Your task to perform on an android device: Open Android settings Image 0: 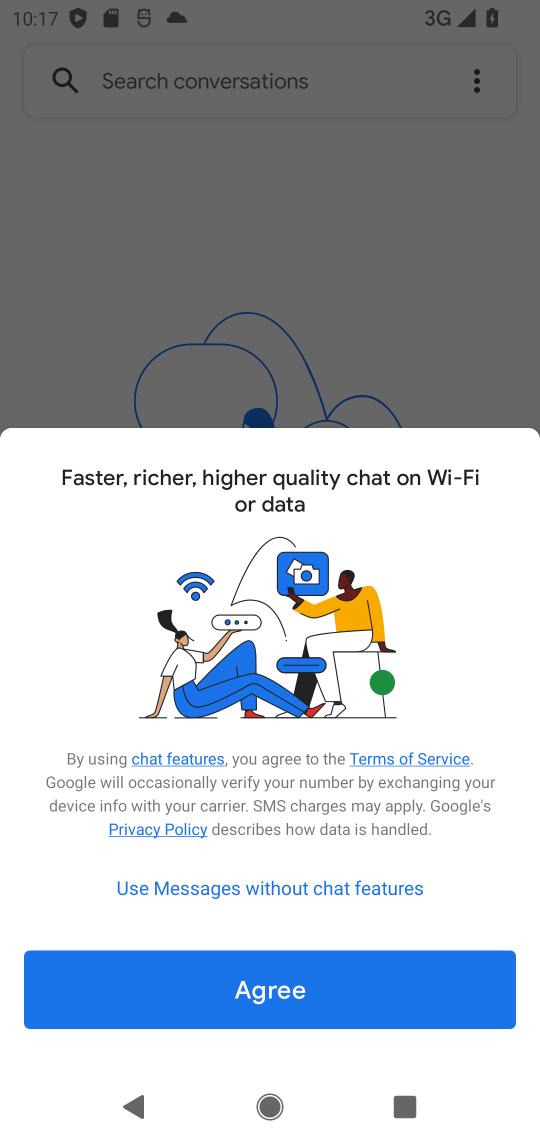
Step 0: press home button
Your task to perform on an android device: Open Android settings Image 1: 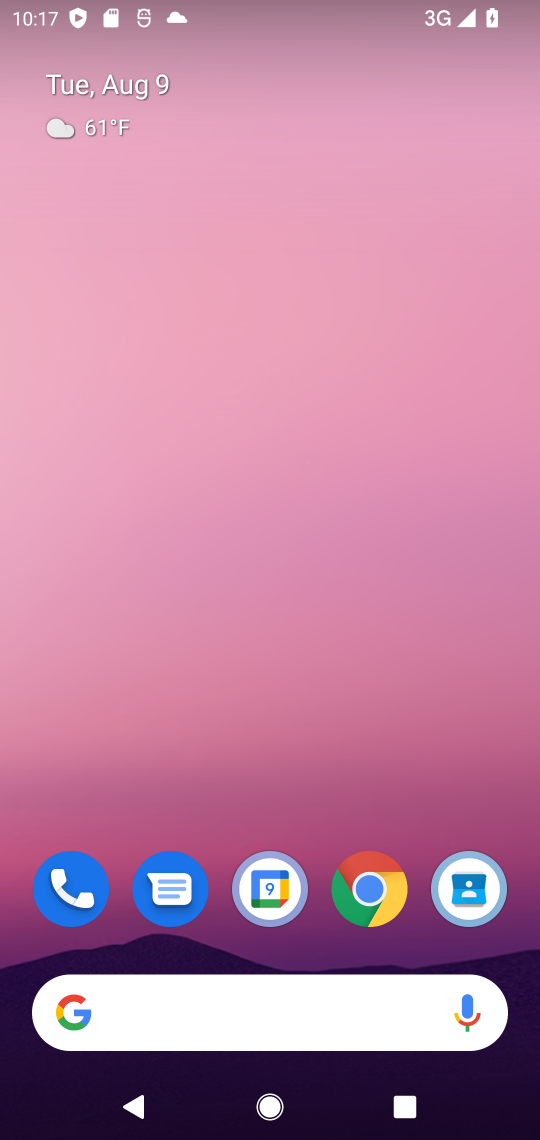
Step 1: drag from (350, 875) to (307, 97)
Your task to perform on an android device: Open Android settings Image 2: 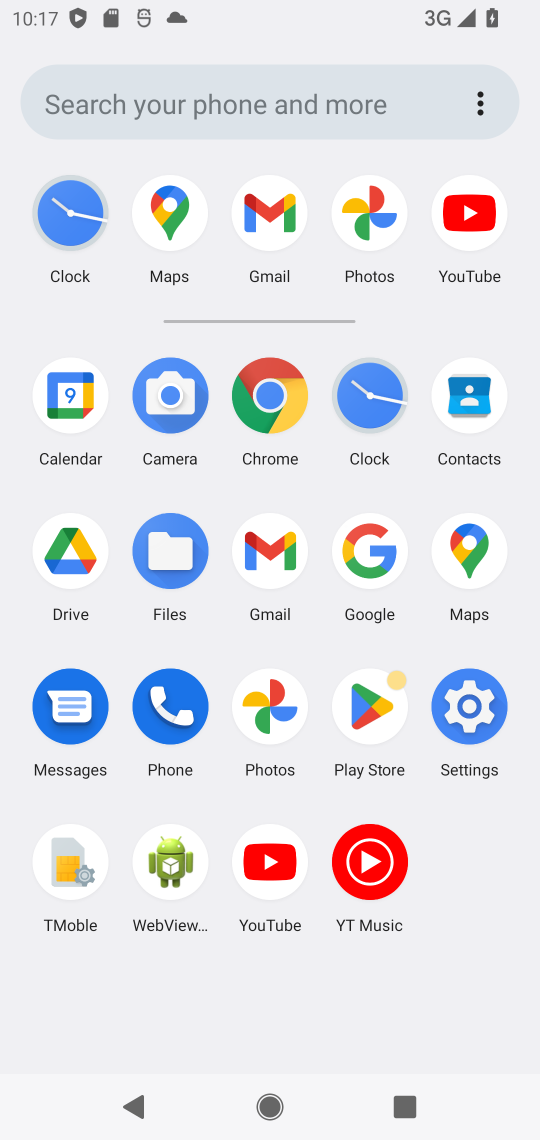
Step 2: click (464, 693)
Your task to perform on an android device: Open Android settings Image 3: 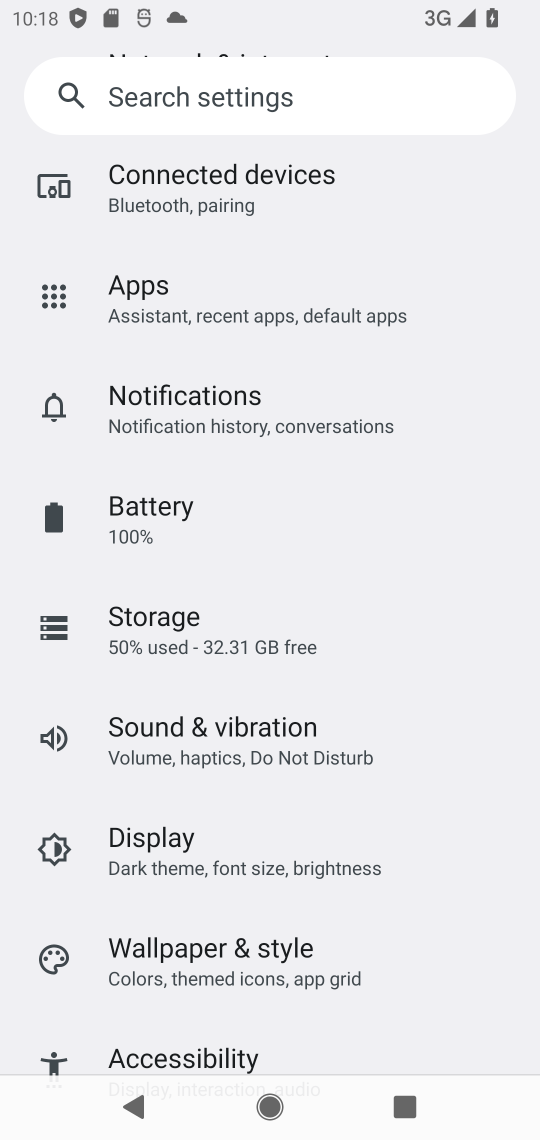
Step 3: drag from (318, 425) to (266, 897)
Your task to perform on an android device: Open Android settings Image 4: 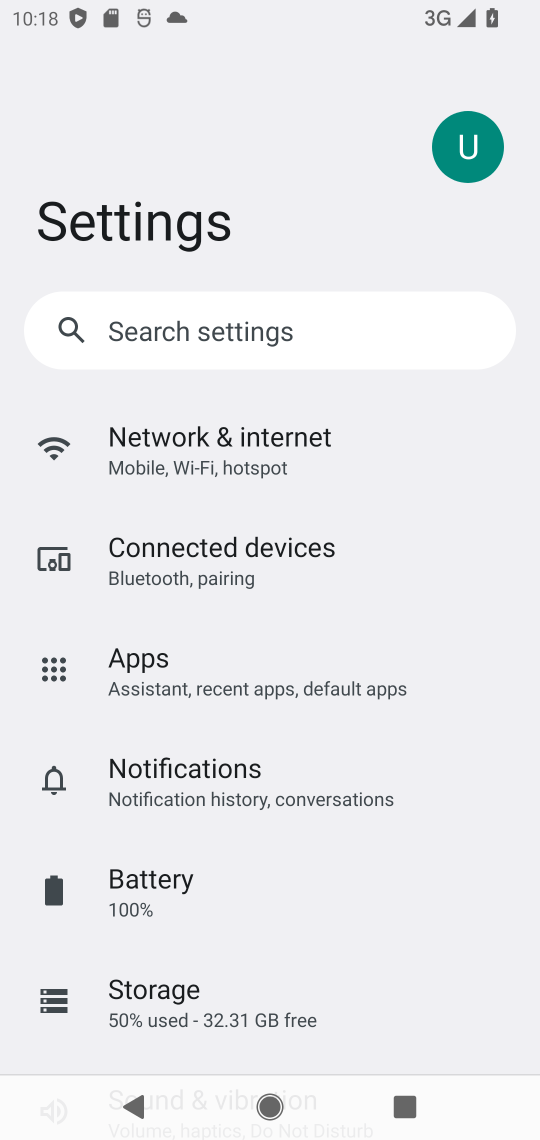
Step 4: click (211, 466)
Your task to perform on an android device: Open Android settings Image 5: 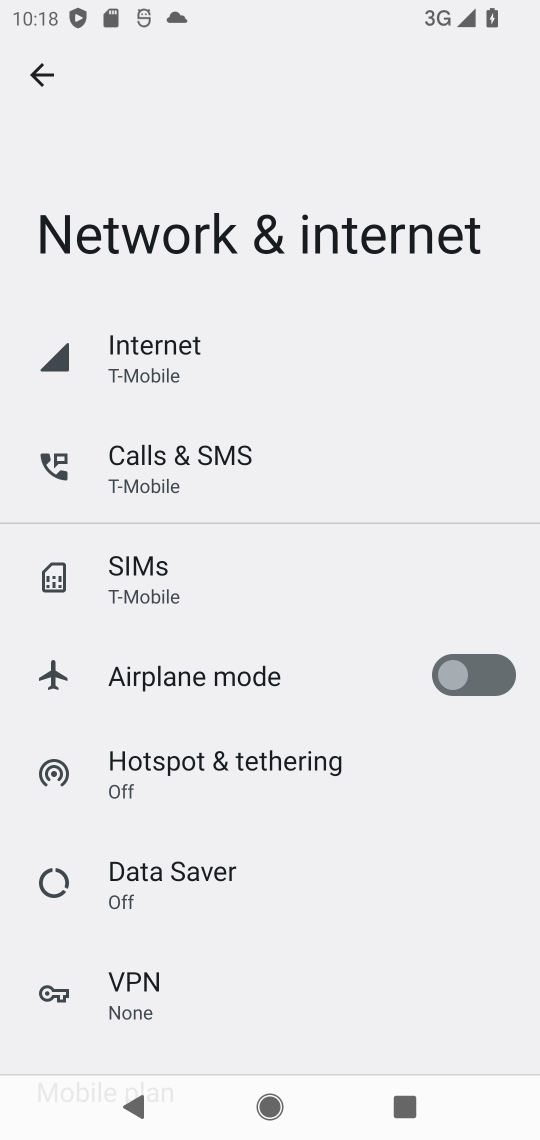
Step 5: task complete